Your task to perform on an android device: Go to internet settings Image 0: 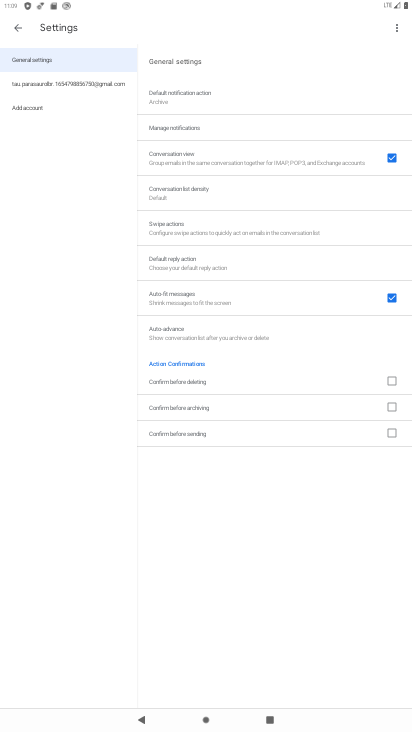
Step 0: press home button
Your task to perform on an android device: Go to internet settings Image 1: 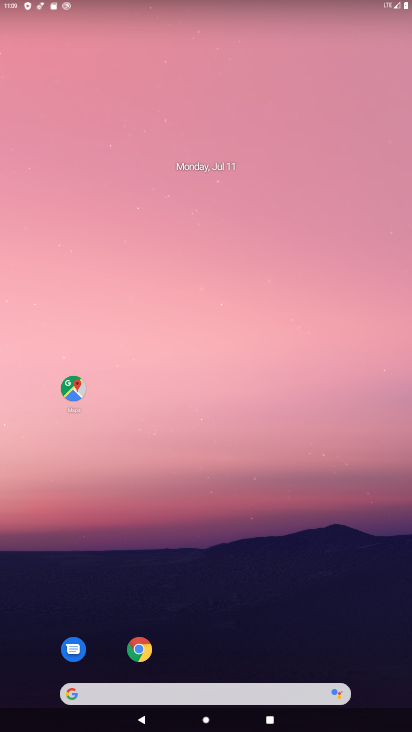
Step 1: drag from (334, 573) to (274, 177)
Your task to perform on an android device: Go to internet settings Image 2: 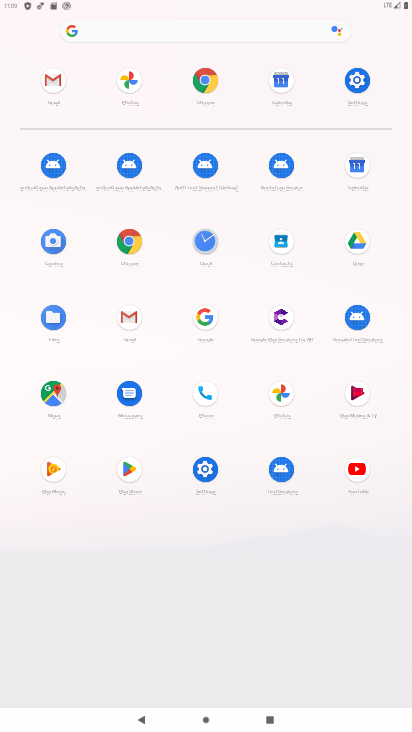
Step 2: click (358, 73)
Your task to perform on an android device: Go to internet settings Image 3: 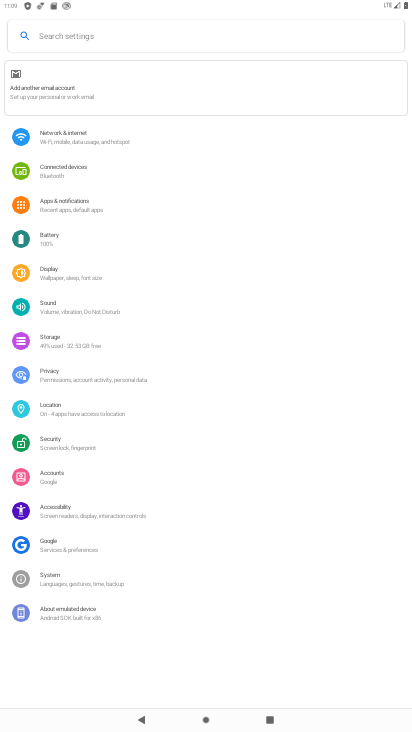
Step 3: click (105, 140)
Your task to perform on an android device: Go to internet settings Image 4: 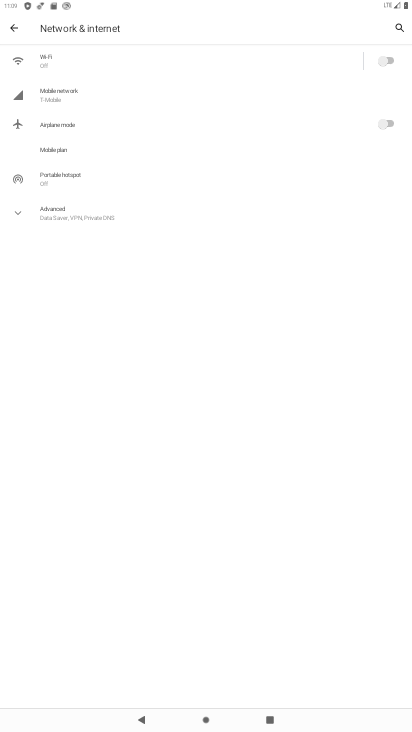
Step 4: click (99, 213)
Your task to perform on an android device: Go to internet settings Image 5: 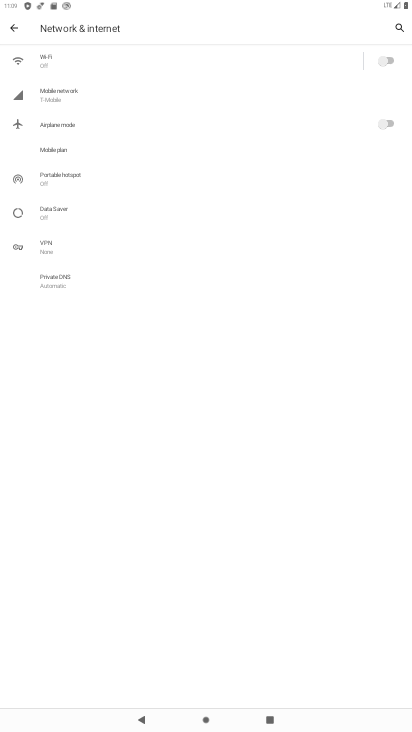
Step 5: task complete